Your task to perform on an android device: turn off javascript in the chrome app Image 0: 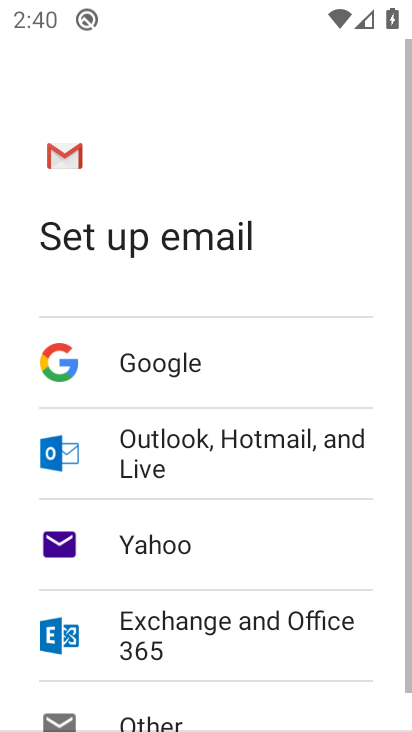
Step 0: press home button
Your task to perform on an android device: turn off javascript in the chrome app Image 1: 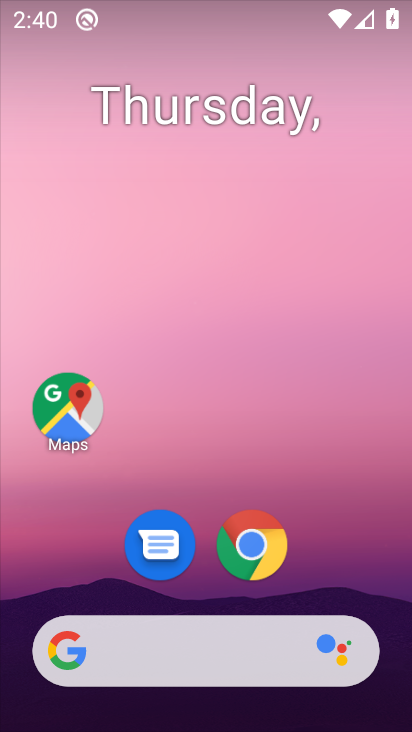
Step 1: click (259, 529)
Your task to perform on an android device: turn off javascript in the chrome app Image 2: 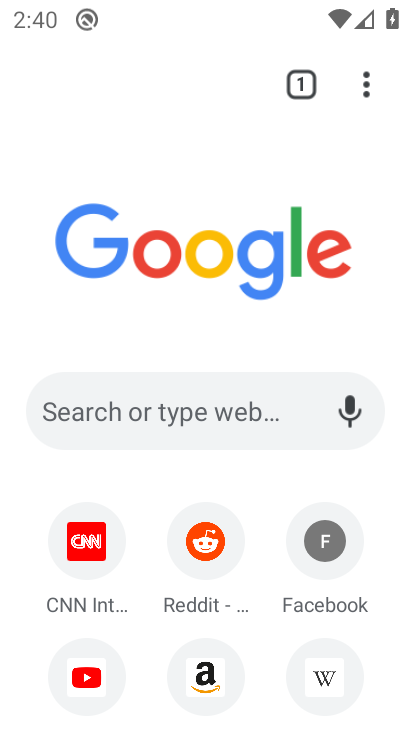
Step 2: click (364, 85)
Your task to perform on an android device: turn off javascript in the chrome app Image 3: 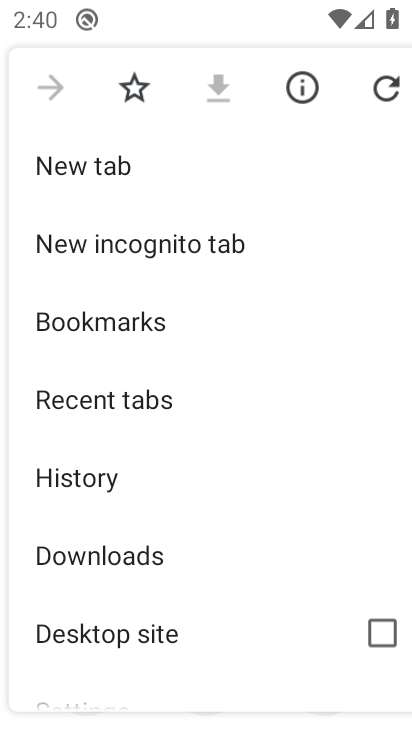
Step 3: drag from (108, 626) to (185, 201)
Your task to perform on an android device: turn off javascript in the chrome app Image 4: 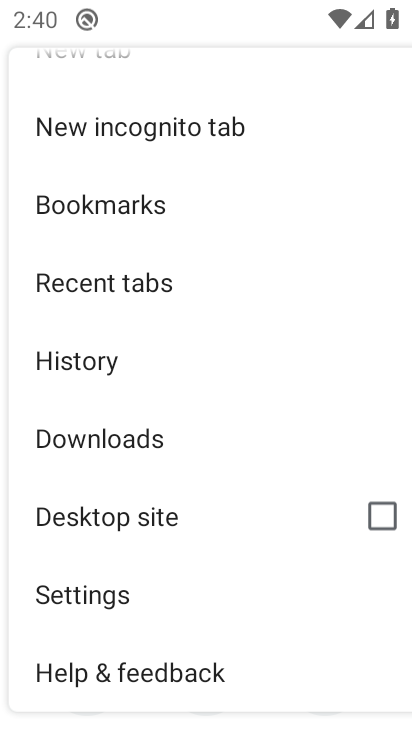
Step 4: click (100, 595)
Your task to perform on an android device: turn off javascript in the chrome app Image 5: 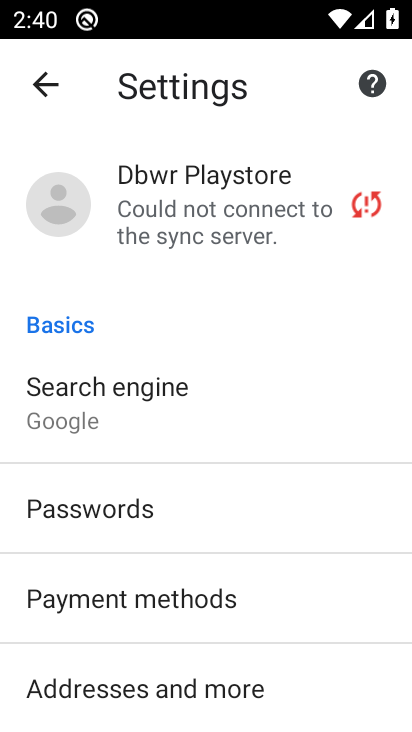
Step 5: drag from (120, 671) to (186, 297)
Your task to perform on an android device: turn off javascript in the chrome app Image 6: 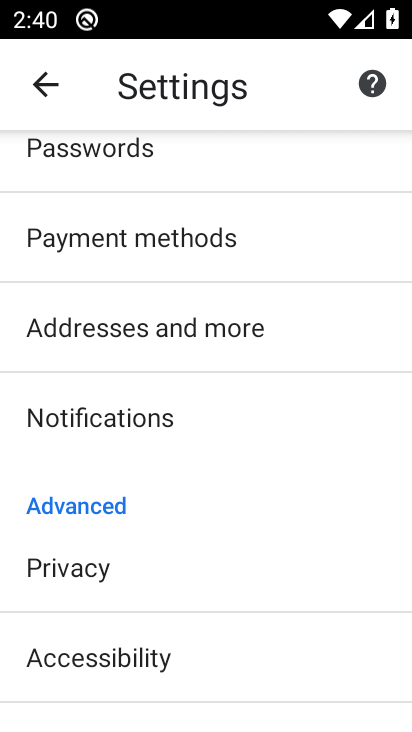
Step 6: drag from (130, 637) to (180, 250)
Your task to perform on an android device: turn off javascript in the chrome app Image 7: 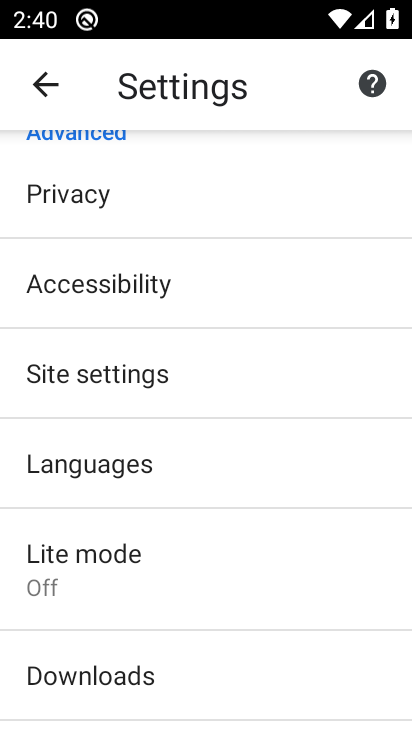
Step 7: click (141, 399)
Your task to perform on an android device: turn off javascript in the chrome app Image 8: 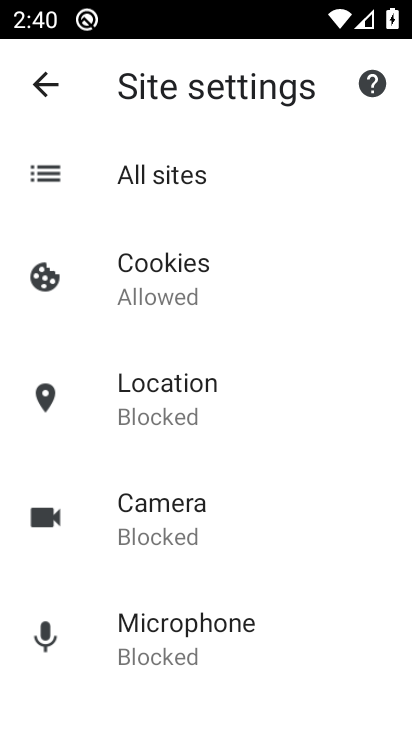
Step 8: drag from (116, 661) to (171, 130)
Your task to perform on an android device: turn off javascript in the chrome app Image 9: 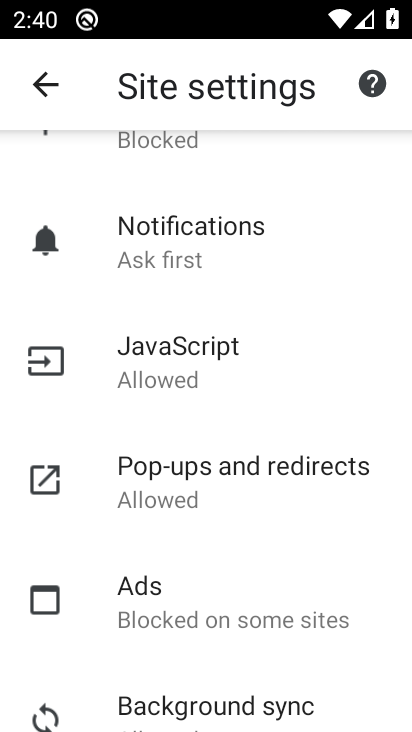
Step 9: click (212, 375)
Your task to perform on an android device: turn off javascript in the chrome app Image 10: 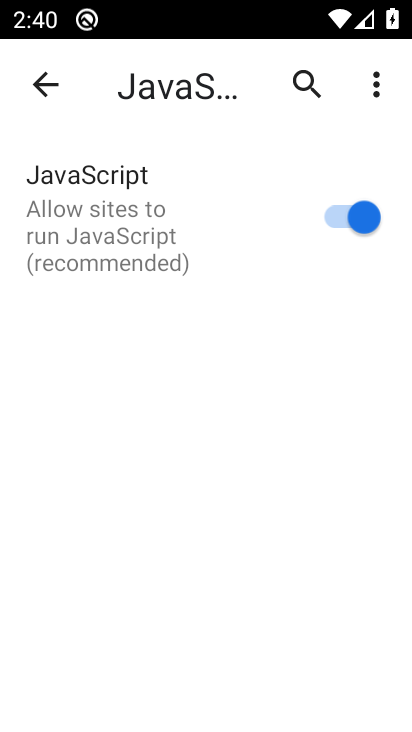
Step 10: click (331, 214)
Your task to perform on an android device: turn off javascript in the chrome app Image 11: 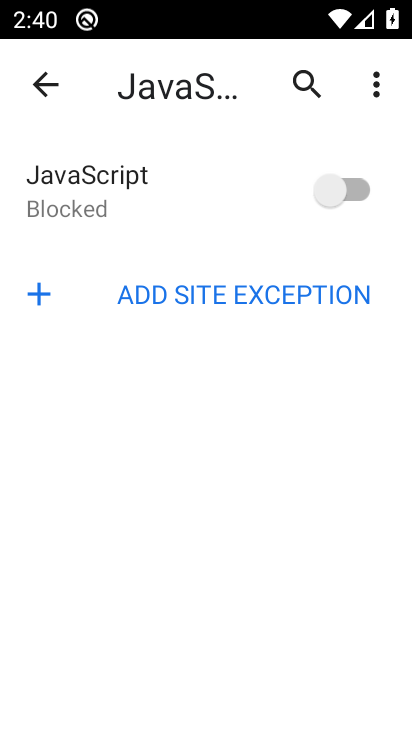
Step 11: task complete